Your task to perform on an android device: Add bose soundlink to the cart on costco.com Image 0: 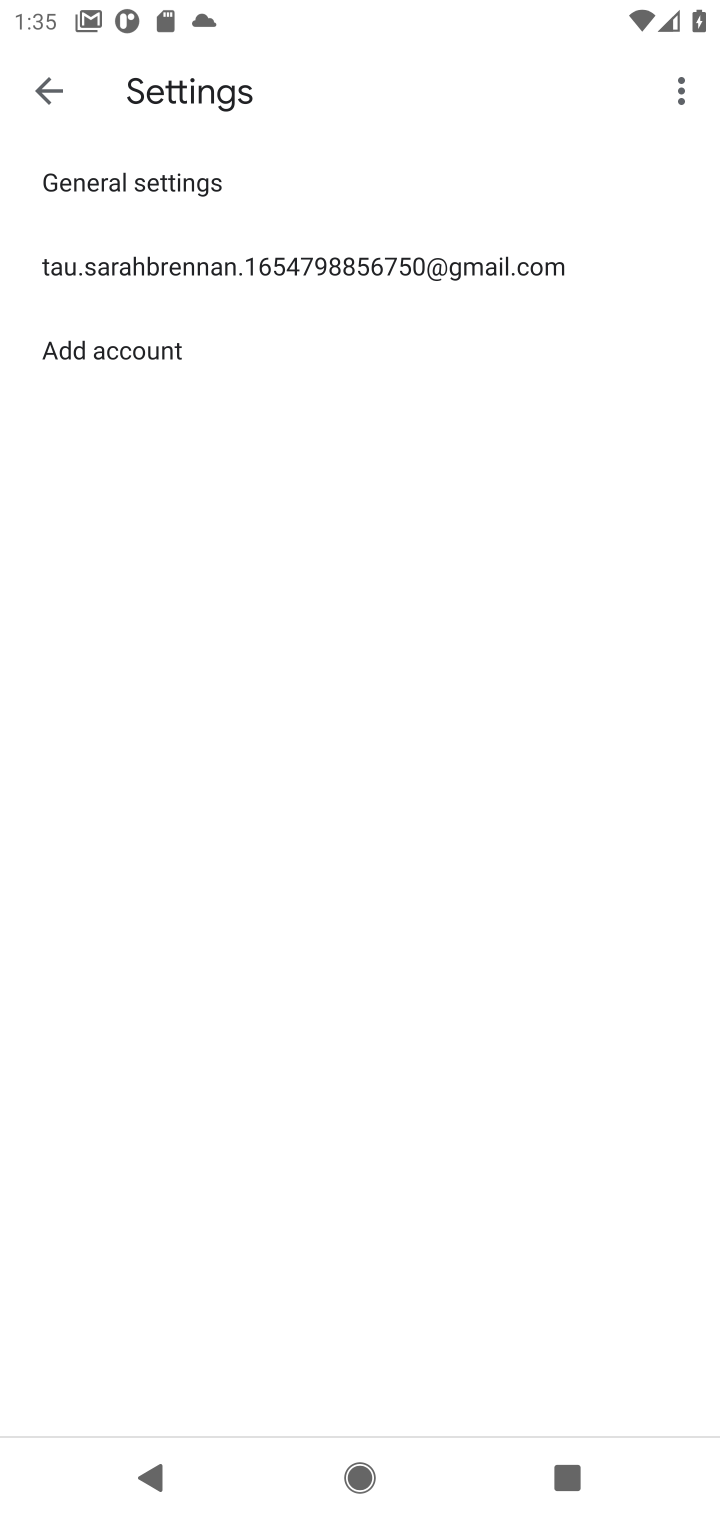
Step 0: press home button
Your task to perform on an android device: Add bose soundlink to the cart on costco.com Image 1: 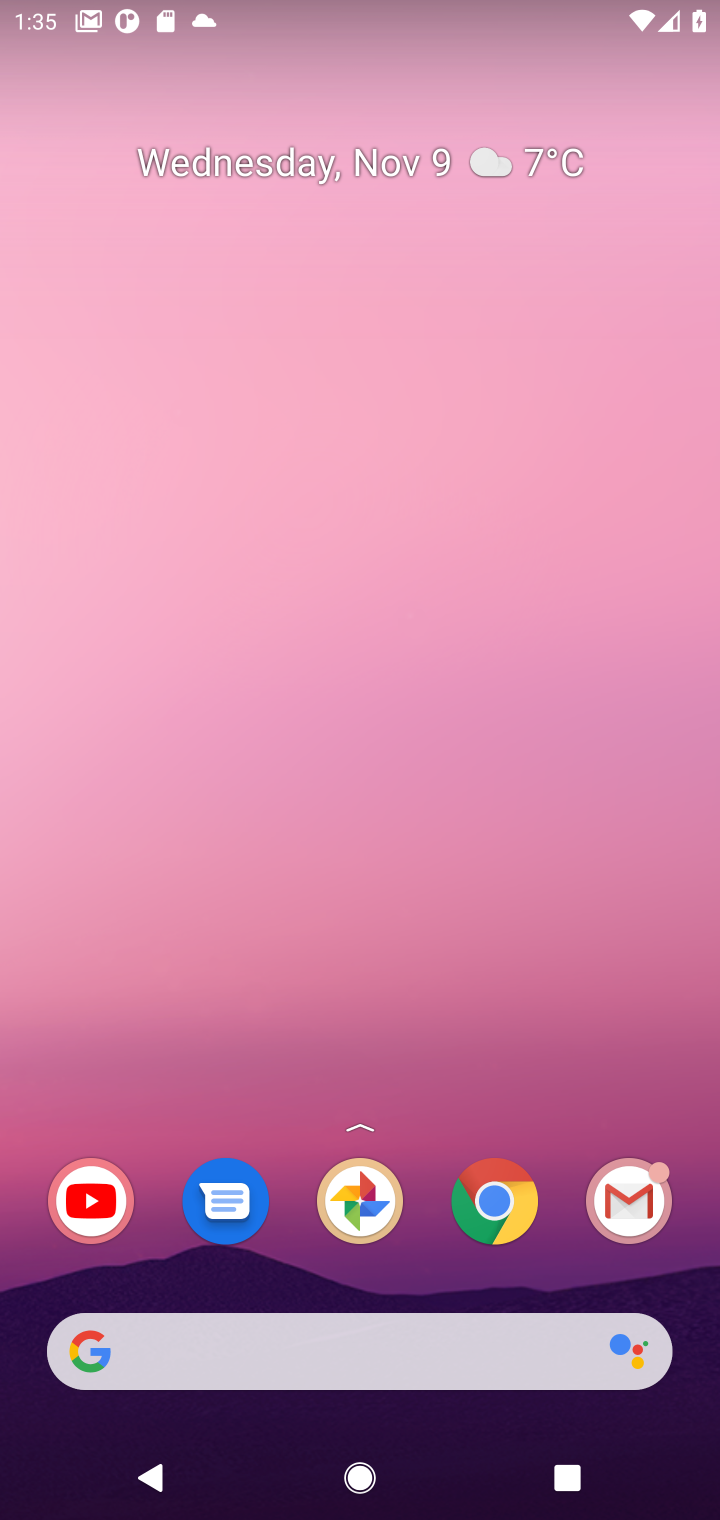
Step 1: click (341, 1346)
Your task to perform on an android device: Add bose soundlink to the cart on costco.com Image 2: 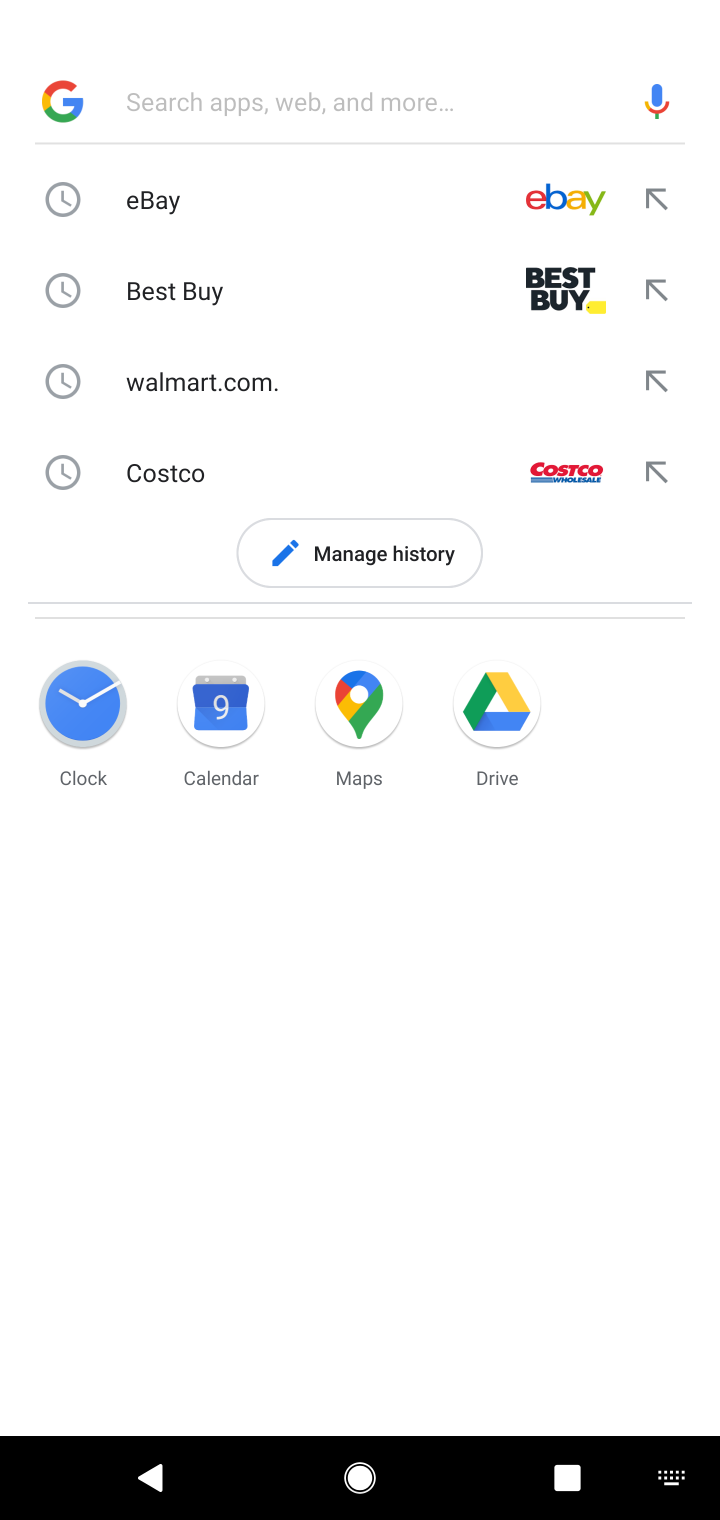
Step 2: click (288, 482)
Your task to perform on an android device: Add bose soundlink to the cart on costco.com Image 3: 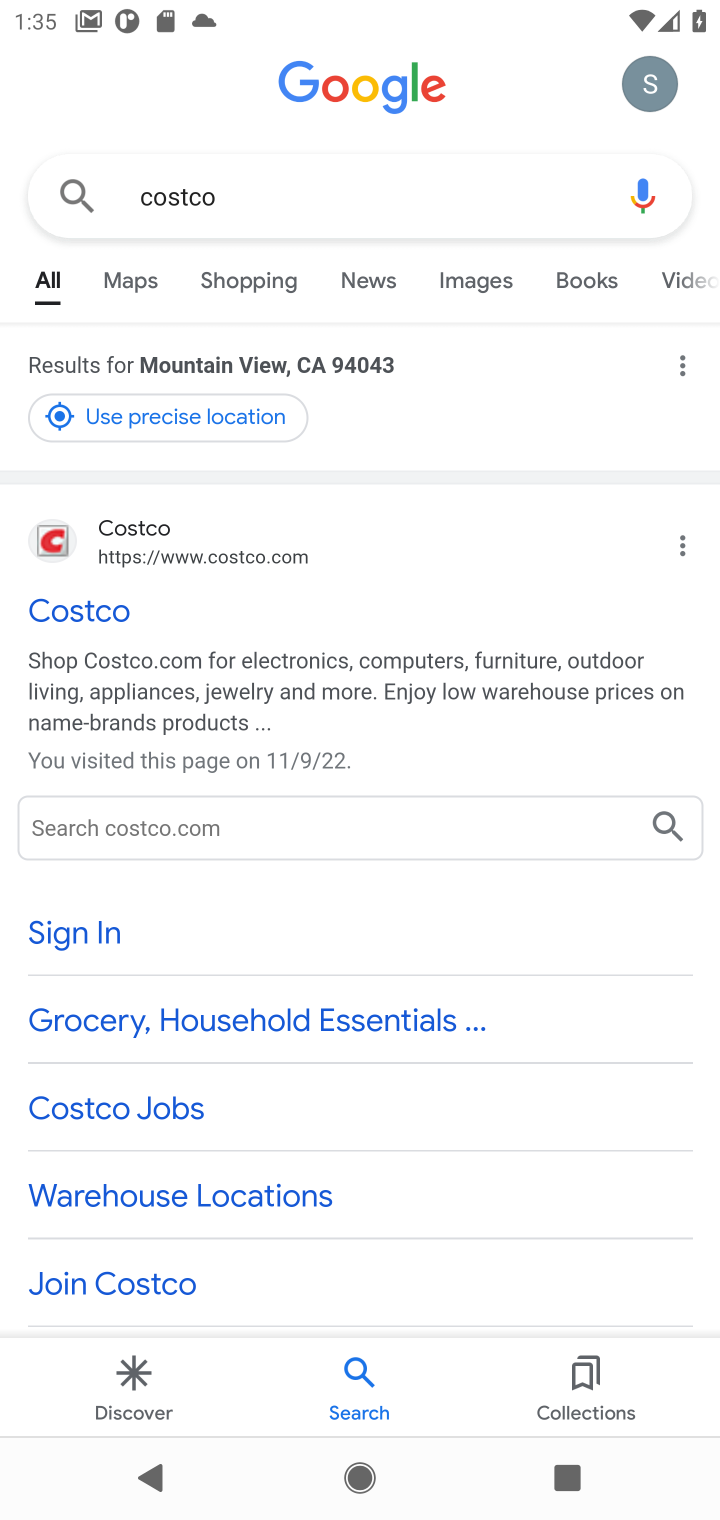
Step 3: click (132, 560)
Your task to perform on an android device: Add bose soundlink to the cart on costco.com Image 4: 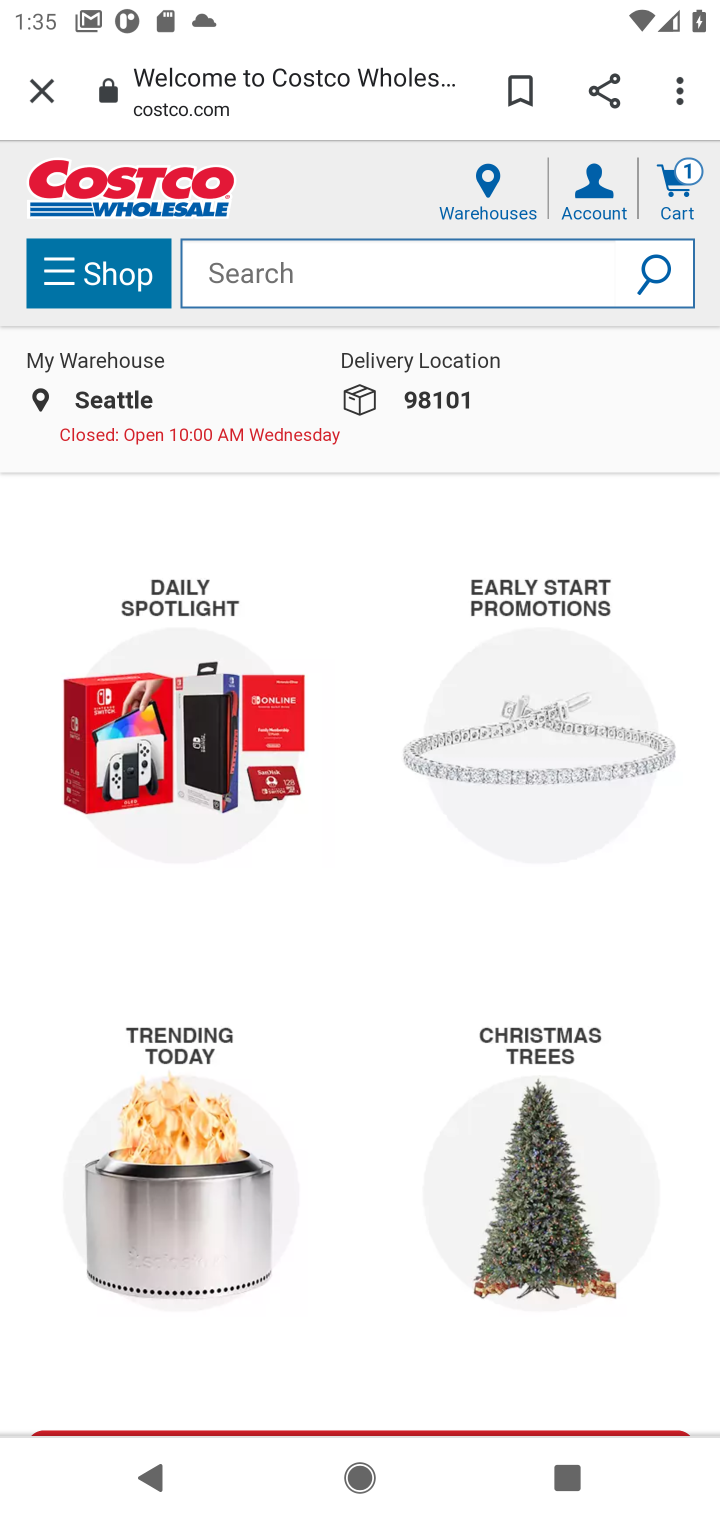
Step 4: click (345, 271)
Your task to perform on an android device: Add bose soundlink to the cart on costco.com Image 5: 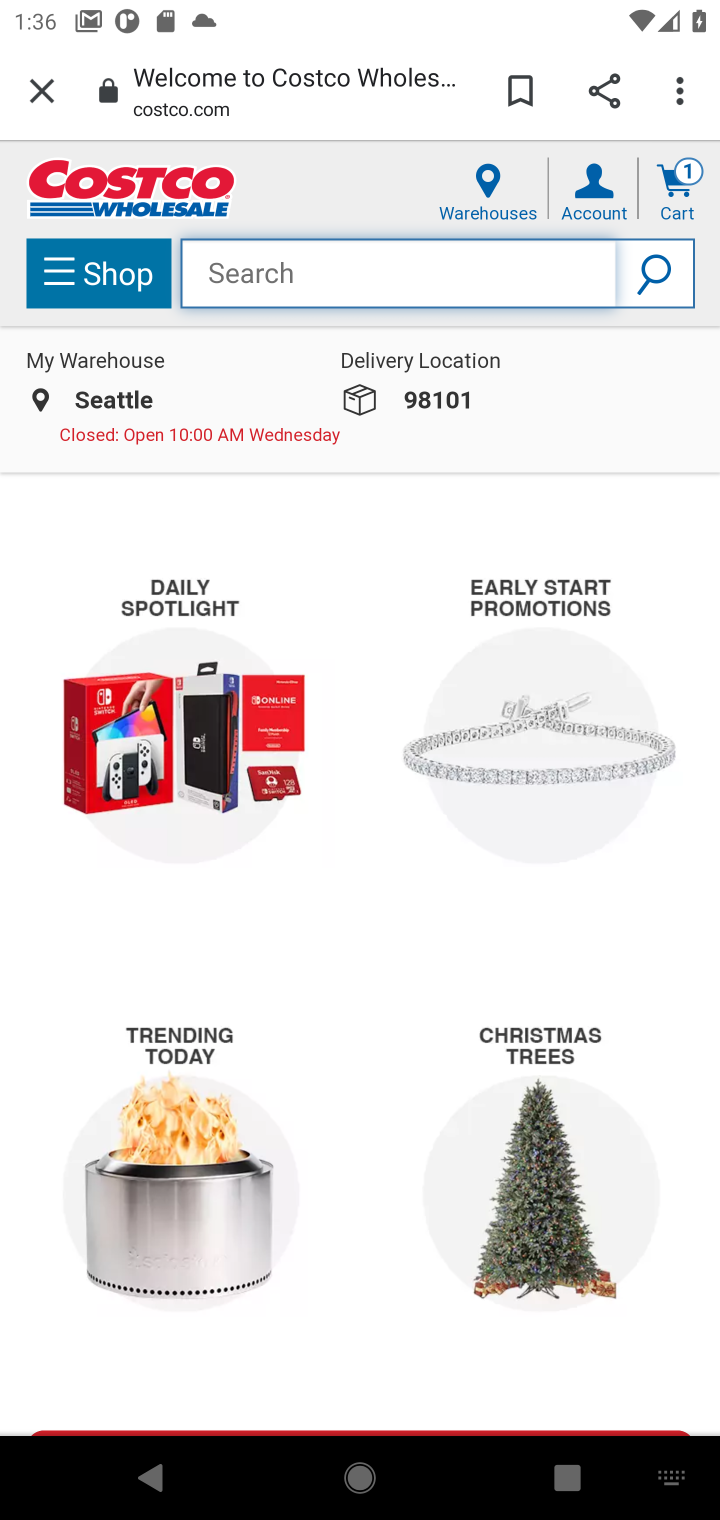
Step 5: type "bose soundlink"
Your task to perform on an android device: Add bose soundlink to the cart on costco.com Image 6: 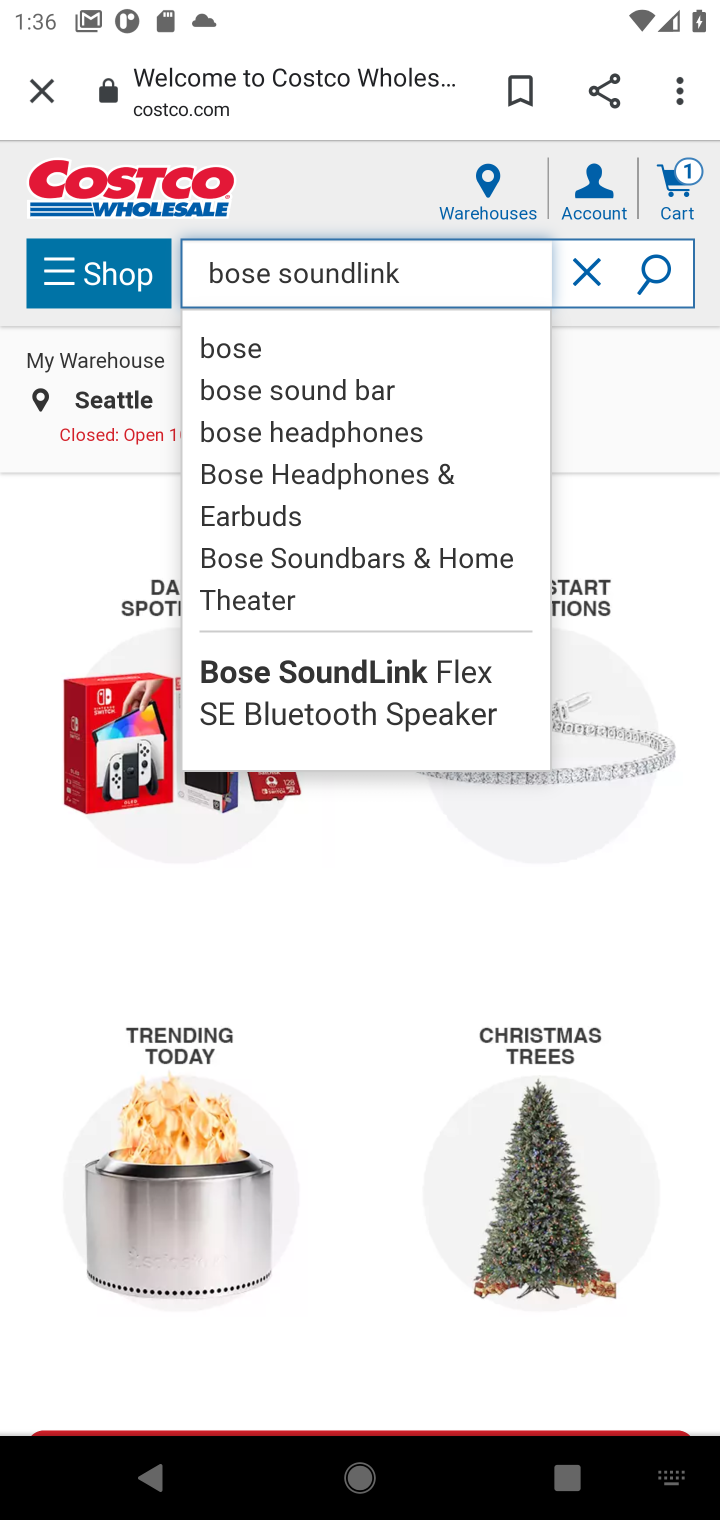
Step 6: click (284, 677)
Your task to perform on an android device: Add bose soundlink to the cart on costco.com Image 7: 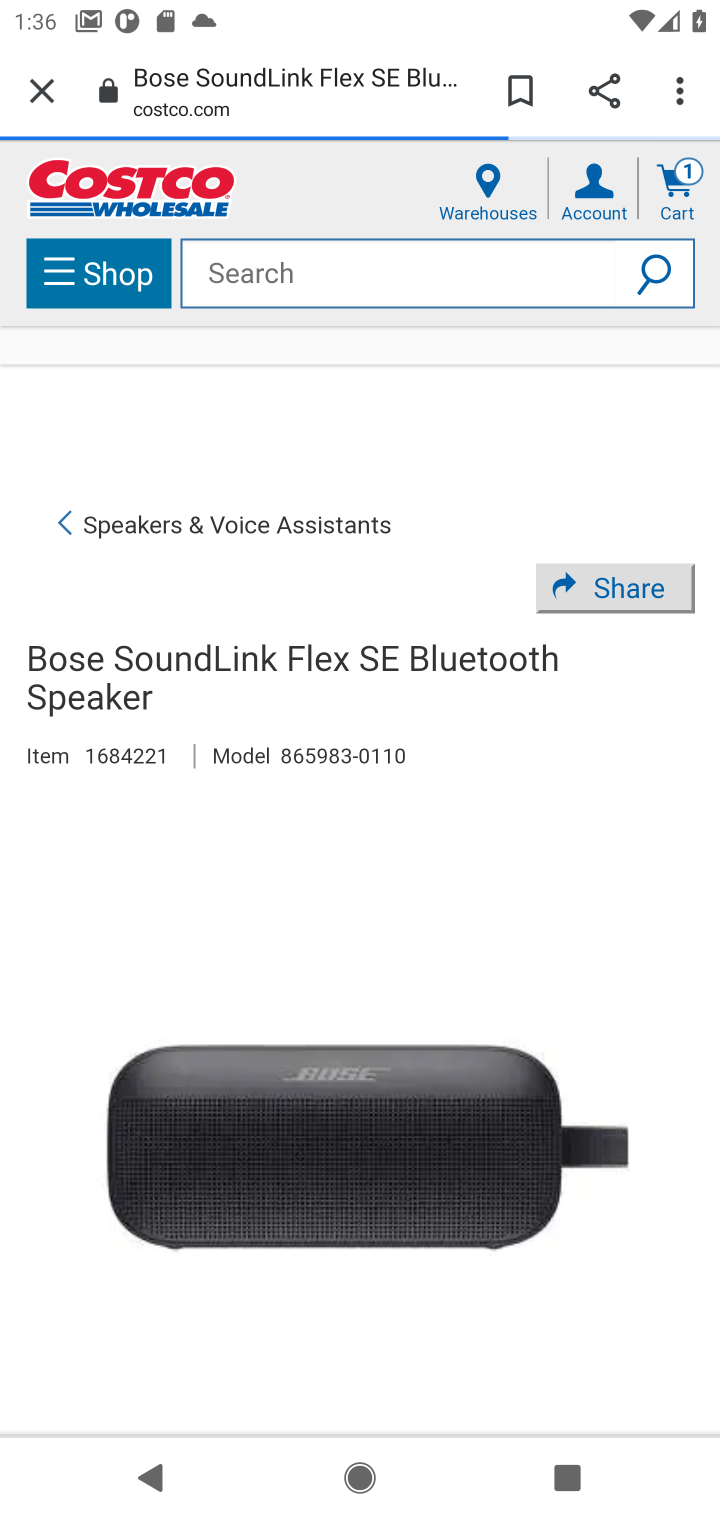
Step 7: drag from (385, 930) to (385, 552)
Your task to perform on an android device: Add bose soundlink to the cart on costco.com Image 8: 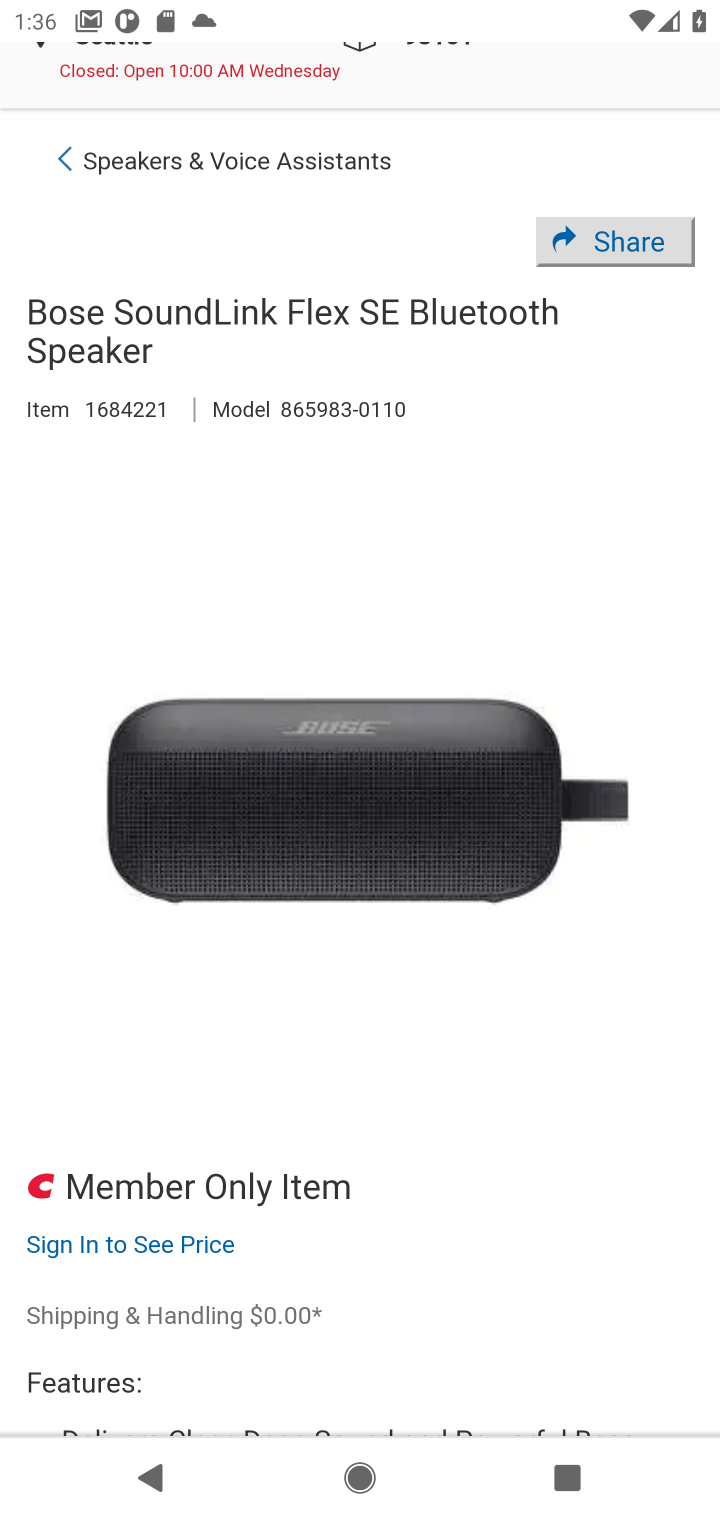
Step 8: click (340, 593)
Your task to perform on an android device: Add bose soundlink to the cart on costco.com Image 9: 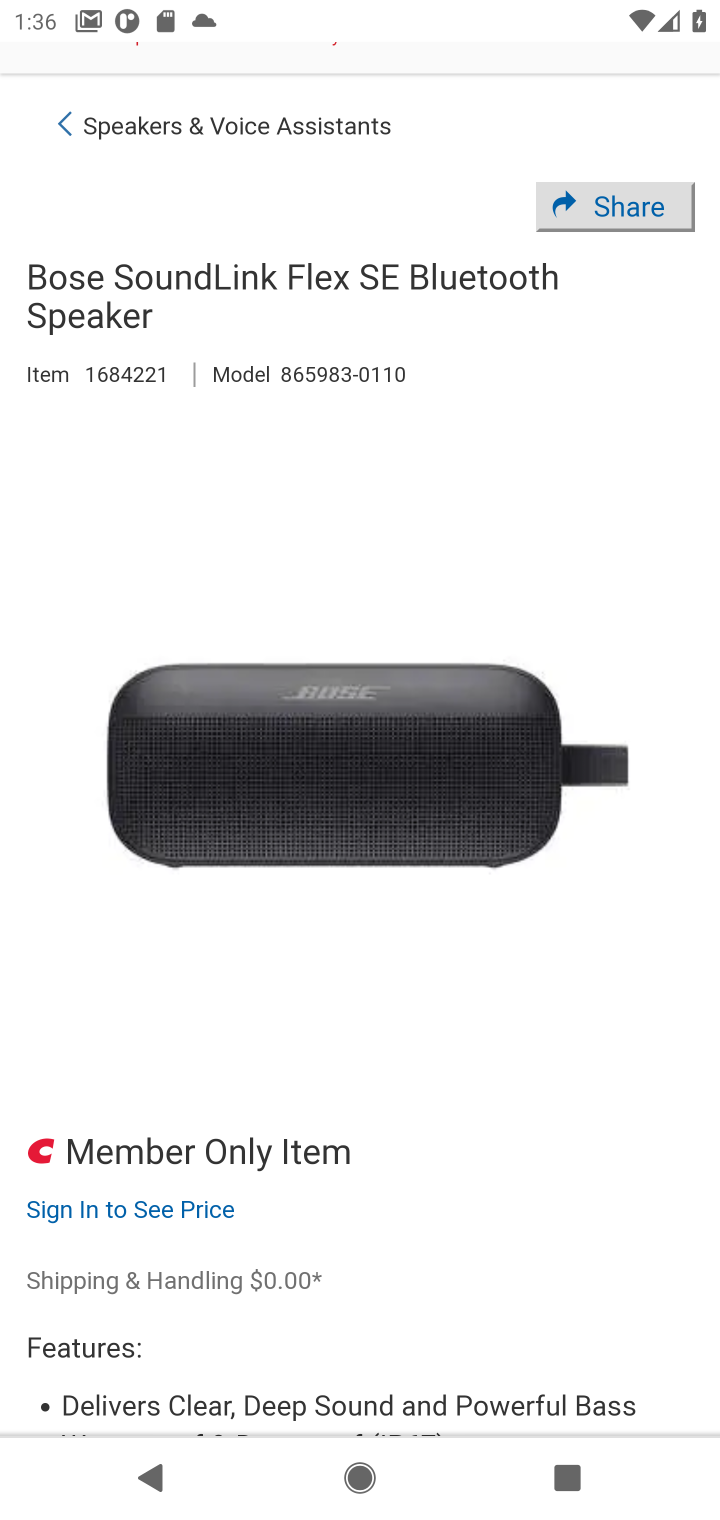
Step 9: drag from (326, 1220) to (326, 901)
Your task to perform on an android device: Add bose soundlink to the cart on costco.com Image 10: 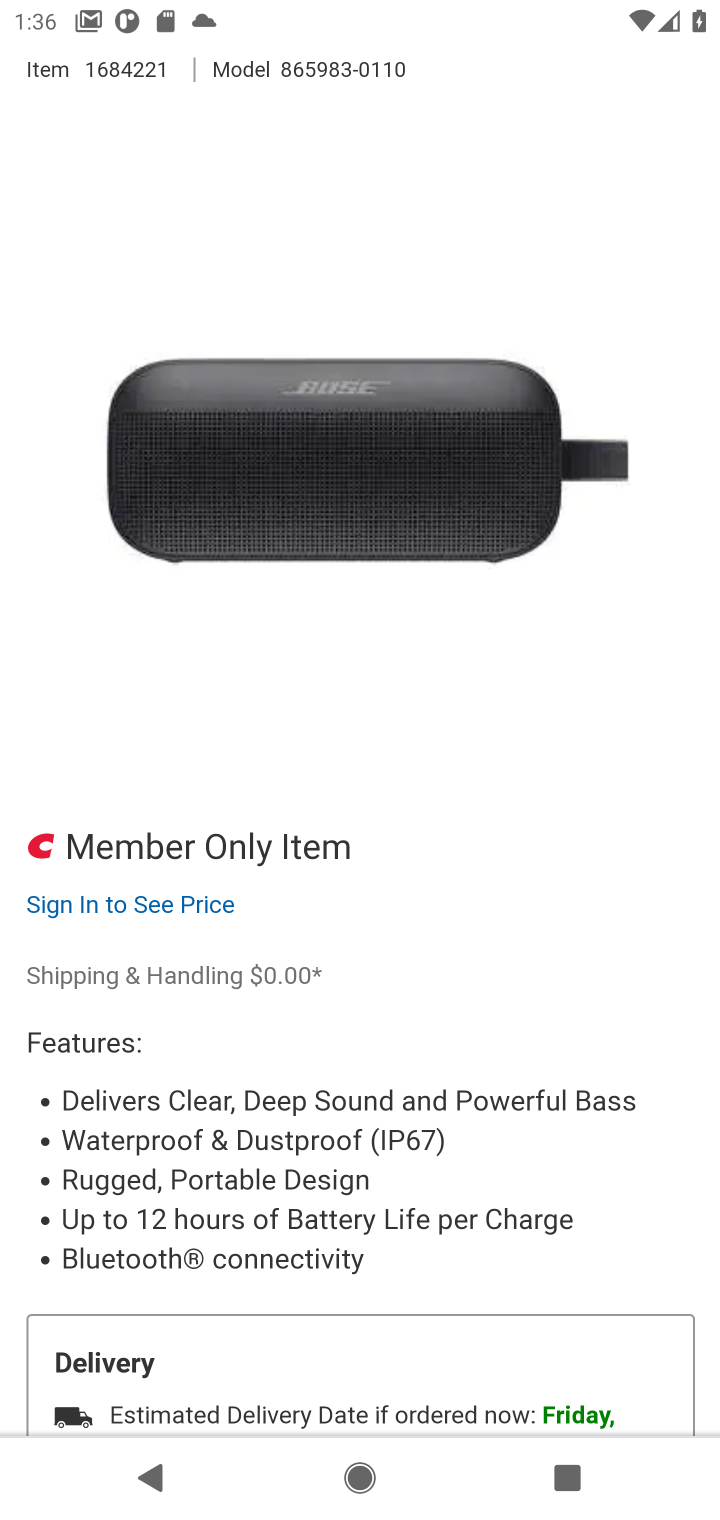
Step 10: drag from (350, 1293) to (373, 767)
Your task to perform on an android device: Add bose soundlink to the cart on costco.com Image 11: 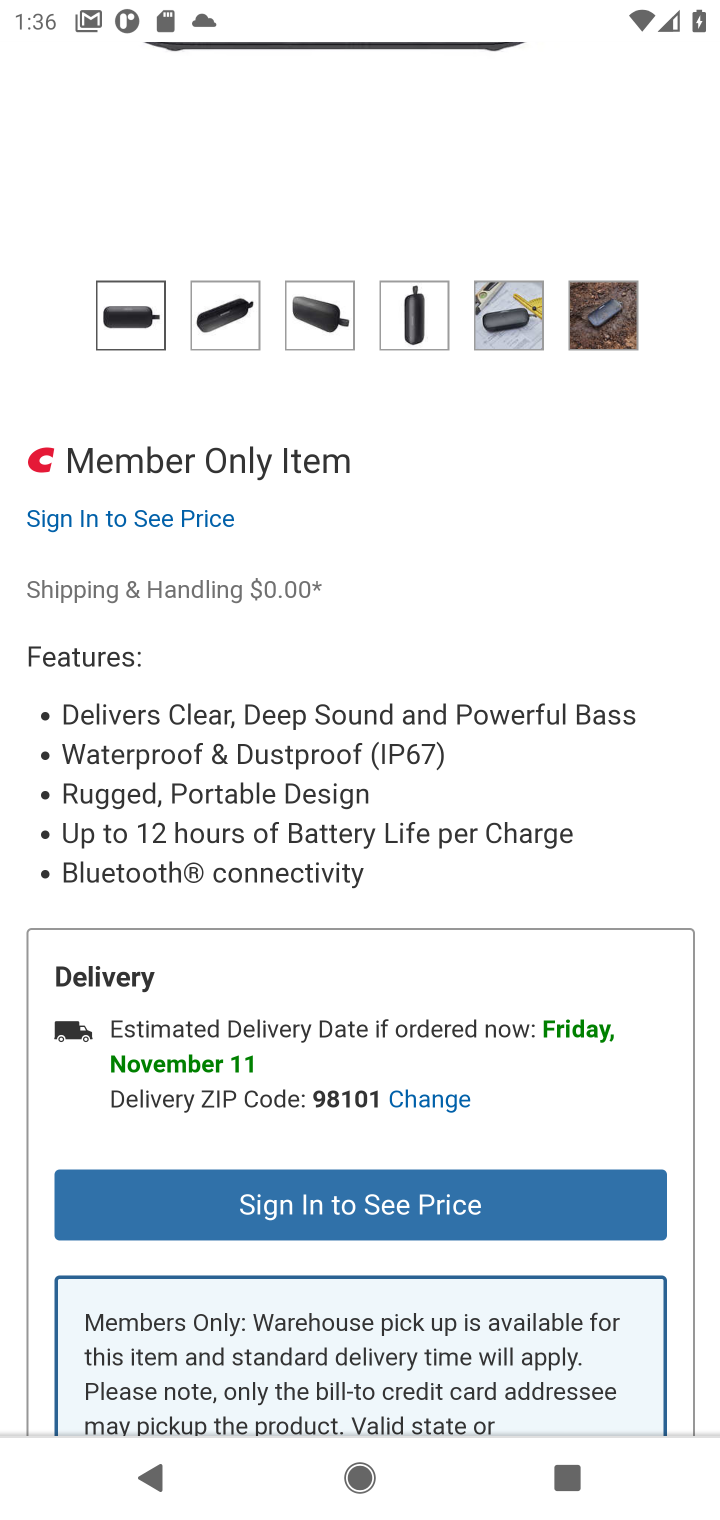
Step 11: drag from (507, 1101) to (501, 672)
Your task to perform on an android device: Add bose soundlink to the cart on costco.com Image 12: 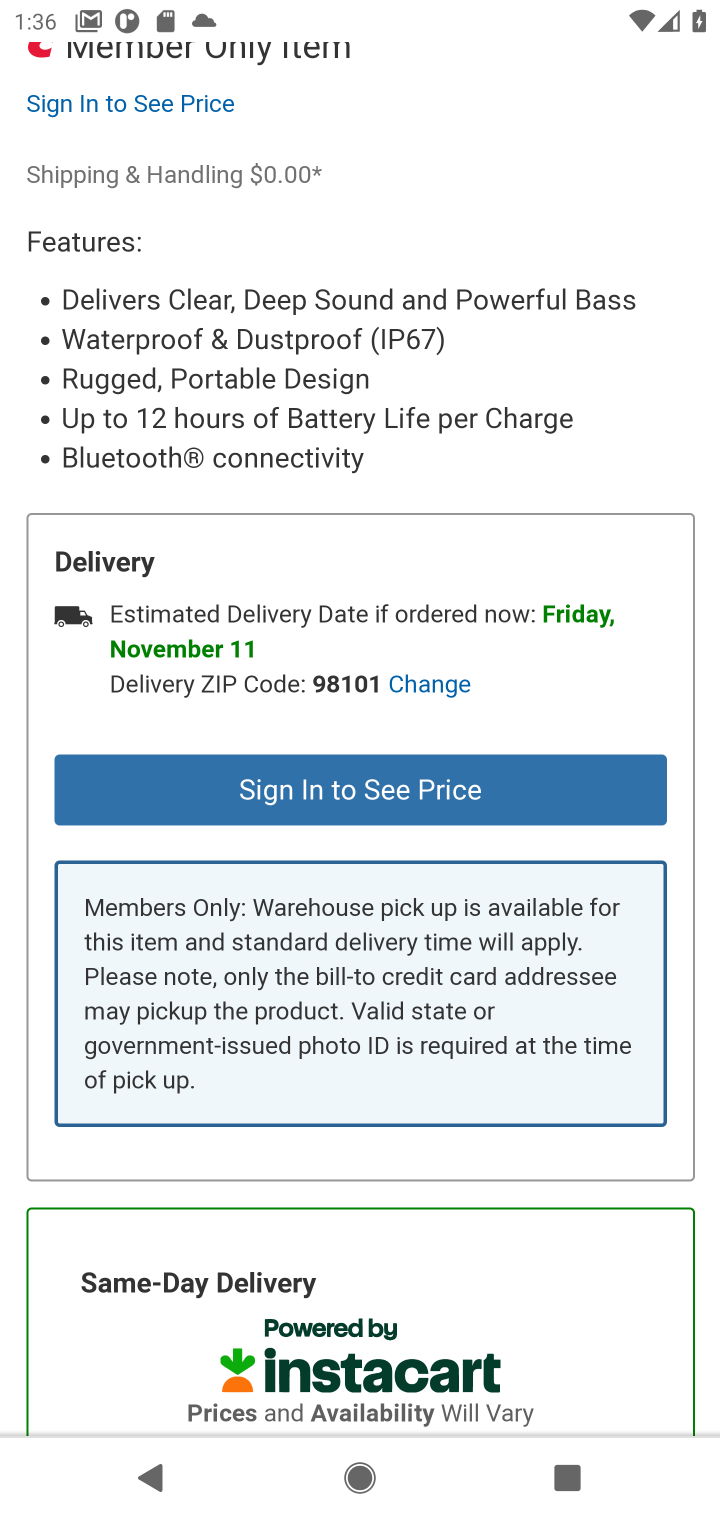
Step 12: drag from (418, 1246) to (418, 812)
Your task to perform on an android device: Add bose soundlink to the cart on costco.com Image 13: 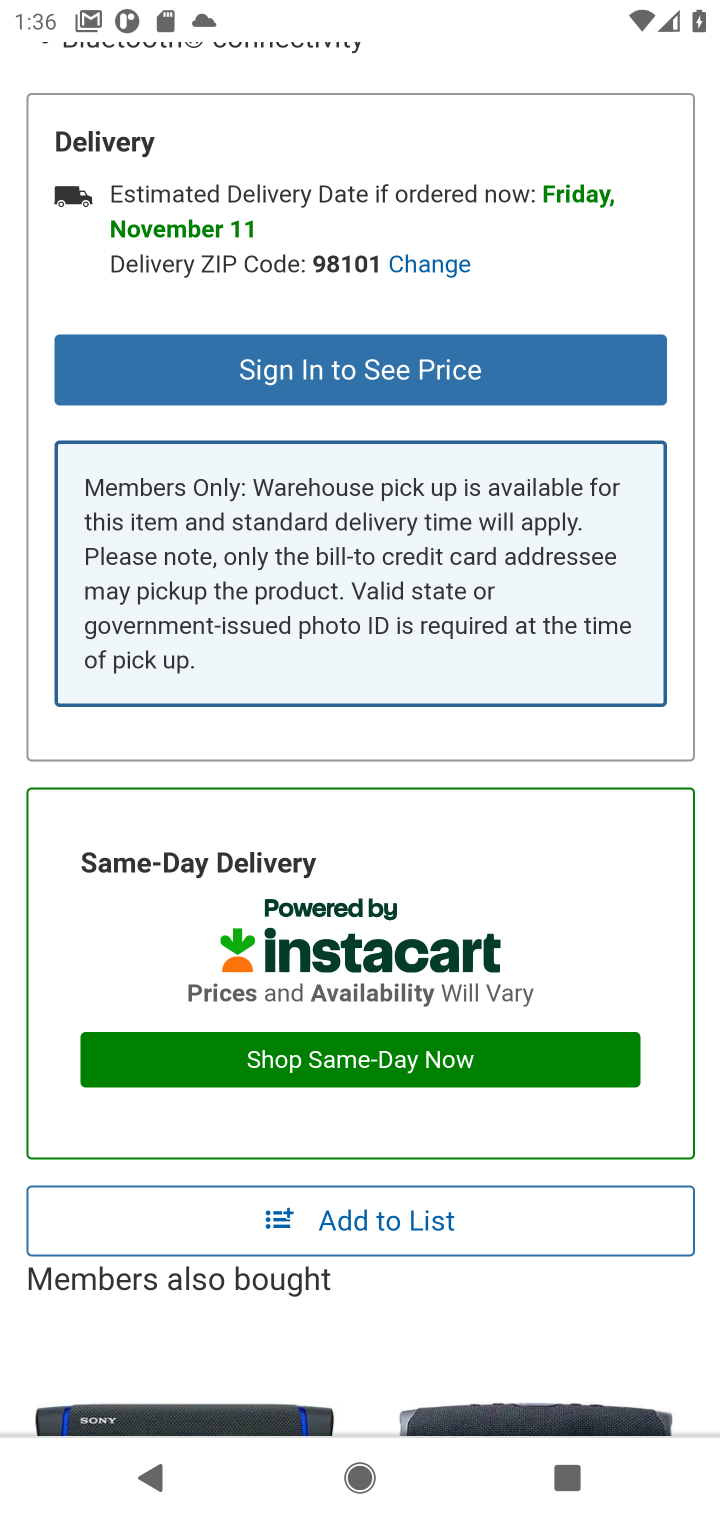
Step 13: click (370, 1213)
Your task to perform on an android device: Add bose soundlink to the cart on costco.com Image 14: 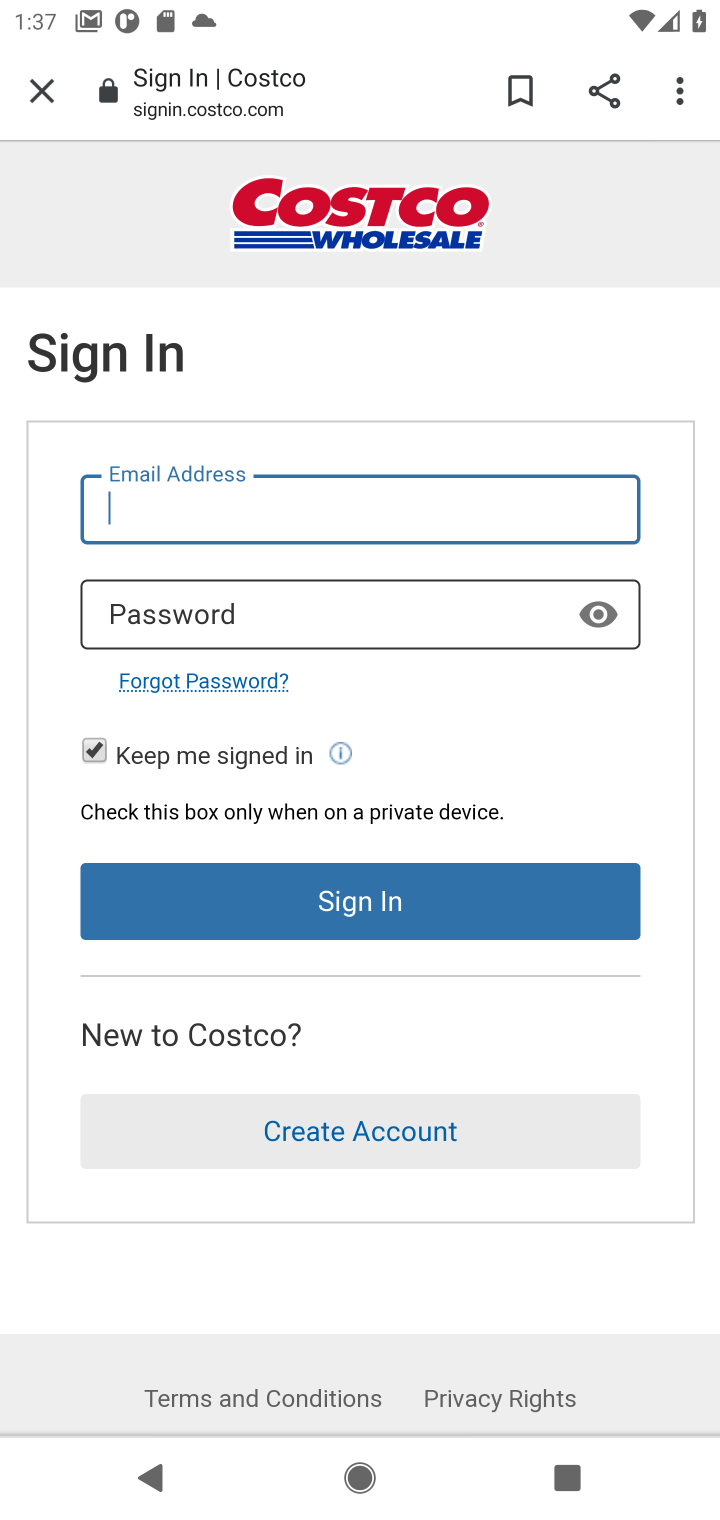
Step 14: task complete